Your task to perform on an android device: turn off wifi Image 0: 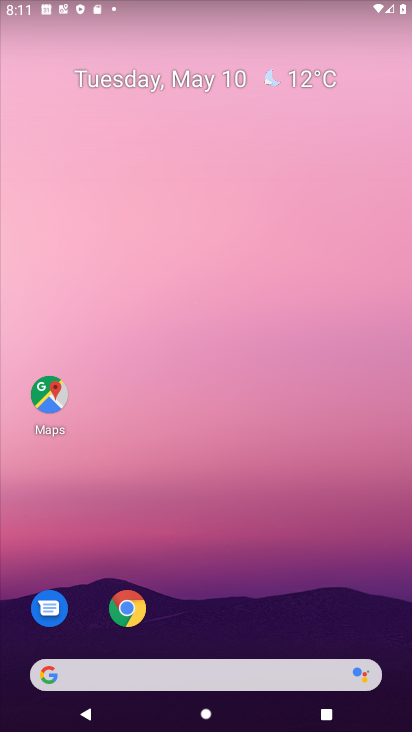
Step 0: press home button
Your task to perform on an android device: turn off wifi Image 1: 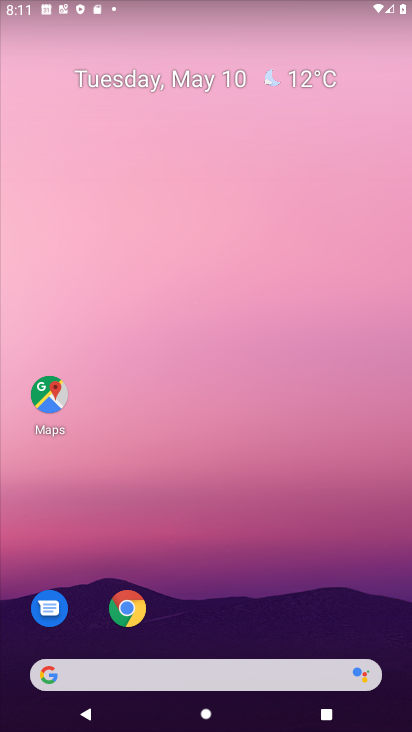
Step 1: drag from (187, 678) to (270, 171)
Your task to perform on an android device: turn off wifi Image 2: 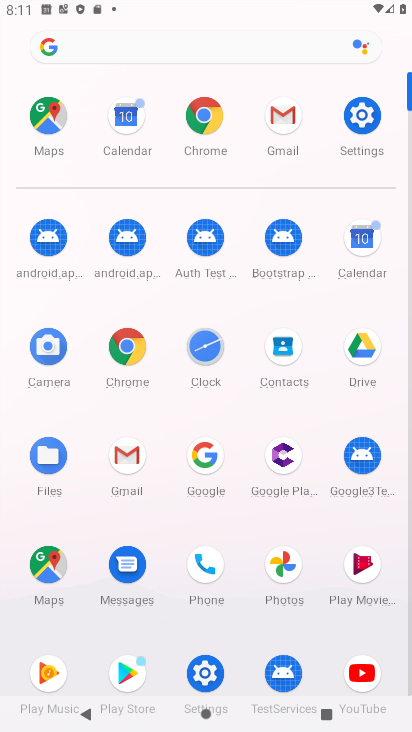
Step 2: click (368, 122)
Your task to perform on an android device: turn off wifi Image 3: 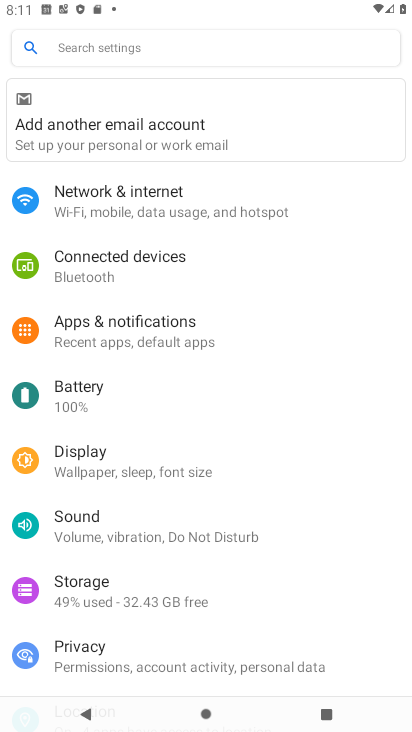
Step 3: click (169, 193)
Your task to perform on an android device: turn off wifi Image 4: 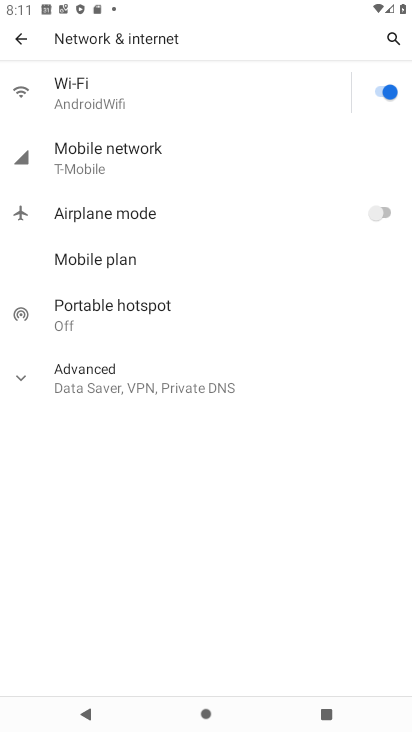
Step 4: click (382, 89)
Your task to perform on an android device: turn off wifi Image 5: 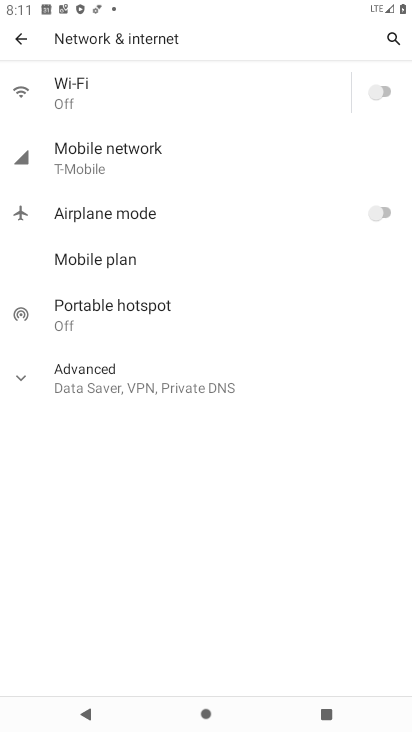
Step 5: task complete